Your task to perform on an android device: turn off picture-in-picture Image 0: 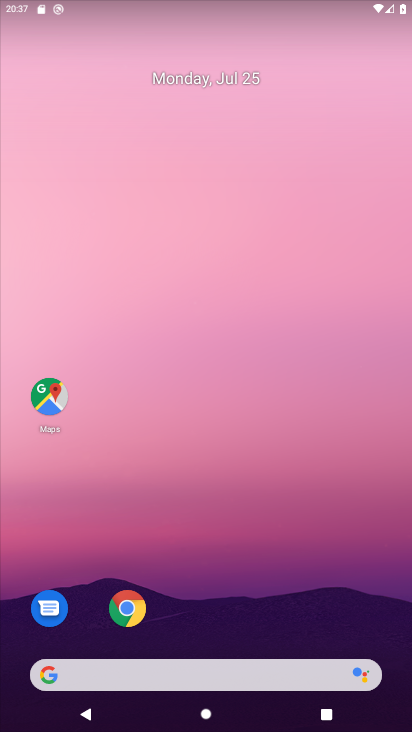
Step 0: click (131, 607)
Your task to perform on an android device: turn off picture-in-picture Image 1: 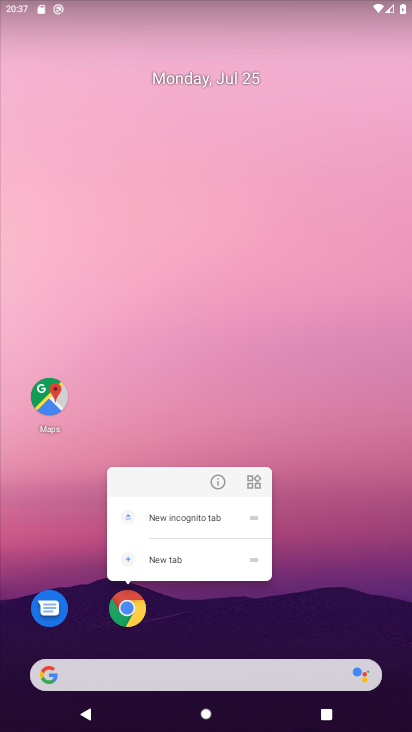
Step 1: click (210, 484)
Your task to perform on an android device: turn off picture-in-picture Image 2: 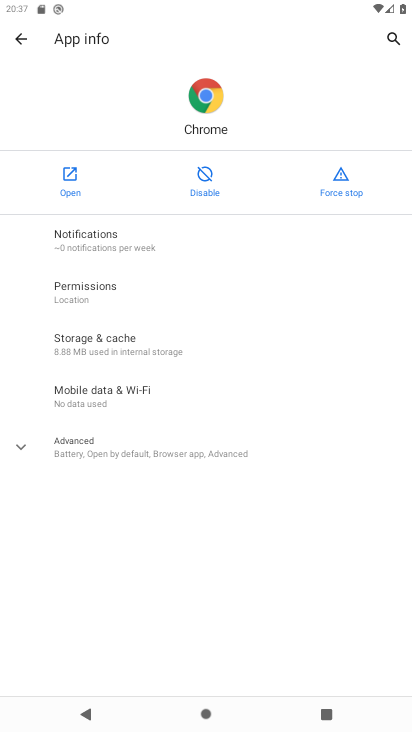
Step 2: click (176, 438)
Your task to perform on an android device: turn off picture-in-picture Image 3: 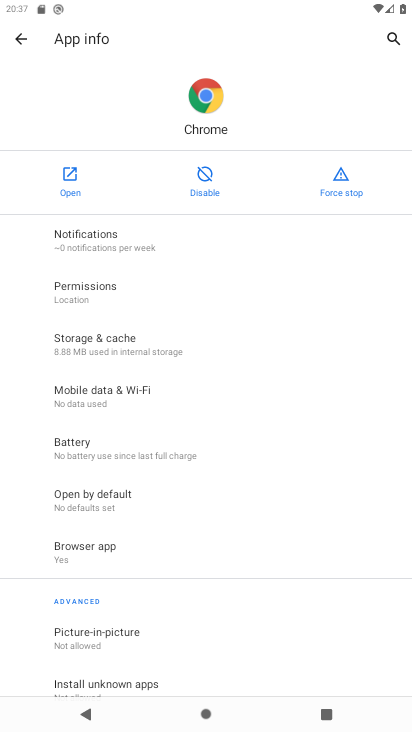
Step 3: click (81, 640)
Your task to perform on an android device: turn off picture-in-picture Image 4: 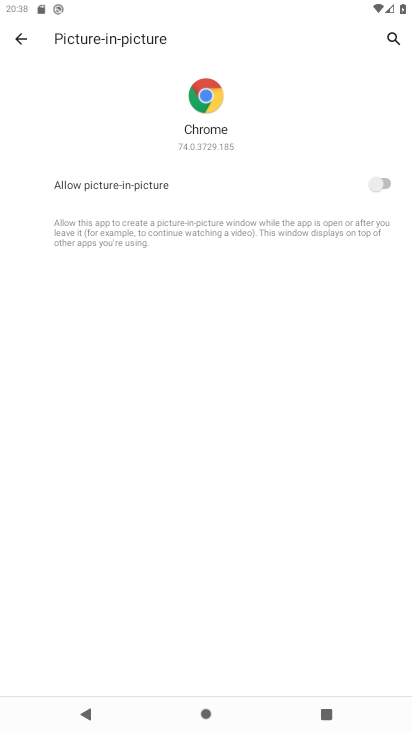
Step 4: task complete